Your task to perform on an android device: Open notification settings Image 0: 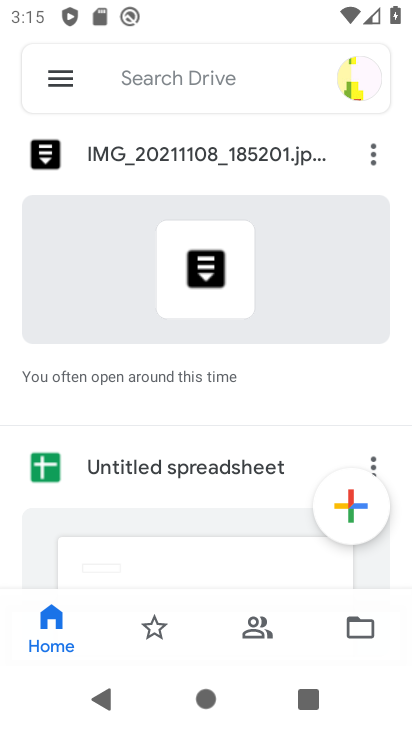
Step 0: press home button
Your task to perform on an android device: Open notification settings Image 1: 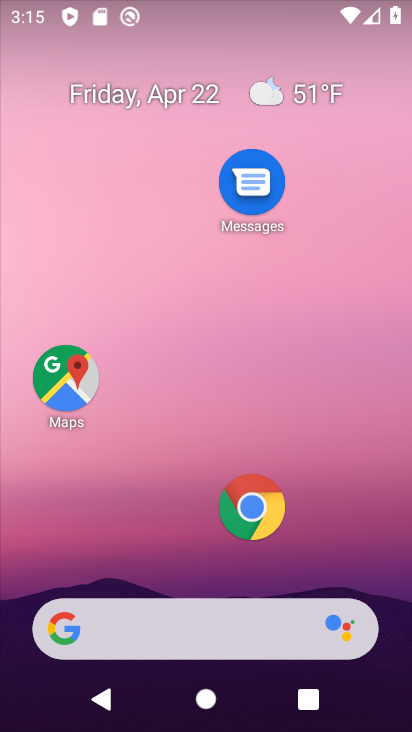
Step 1: drag from (153, 599) to (230, 143)
Your task to perform on an android device: Open notification settings Image 2: 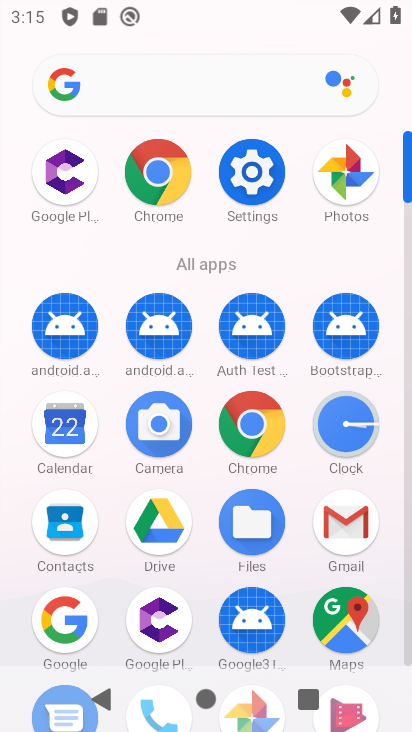
Step 2: click (246, 180)
Your task to perform on an android device: Open notification settings Image 3: 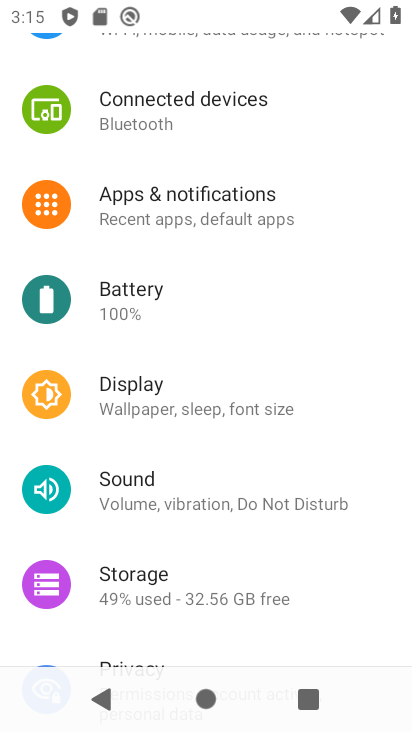
Step 3: click (196, 203)
Your task to perform on an android device: Open notification settings Image 4: 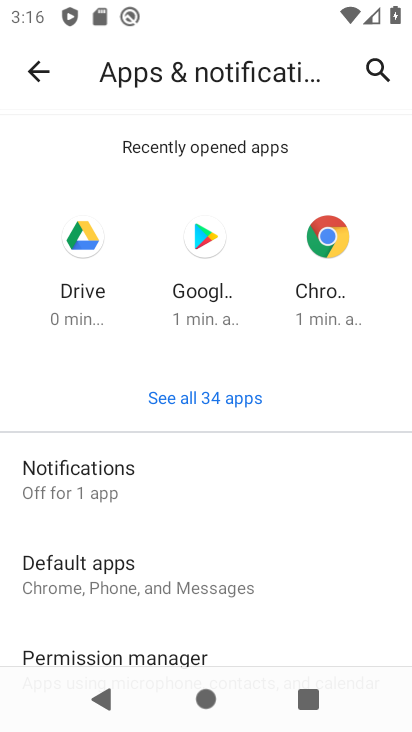
Step 4: click (63, 465)
Your task to perform on an android device: Open notification settings Image 5: 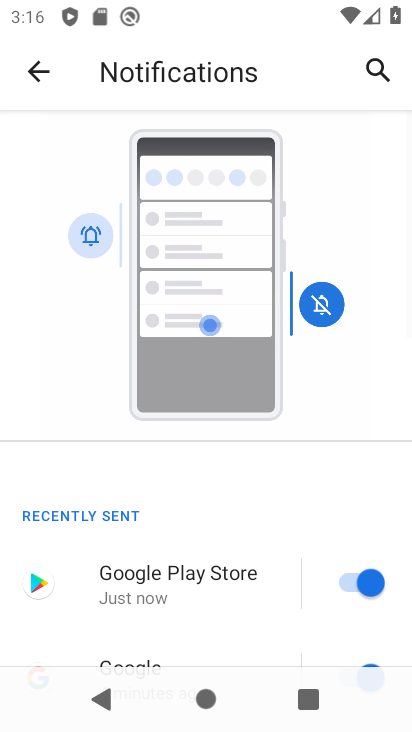
Step 5: task complete